Your task to perform on an android device: Search for Mexican restaurants on Maps Image 0: 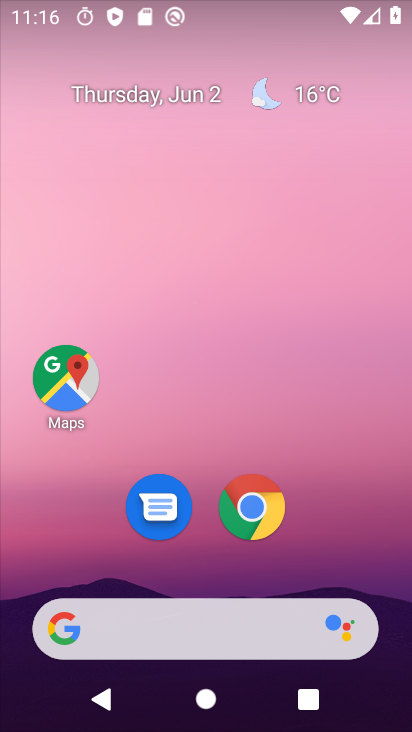
Step 0: drag from (402, 640) to (313, 47)
Your task to perform on an android device: Search for Mexican restaurants on Maps Image 1: 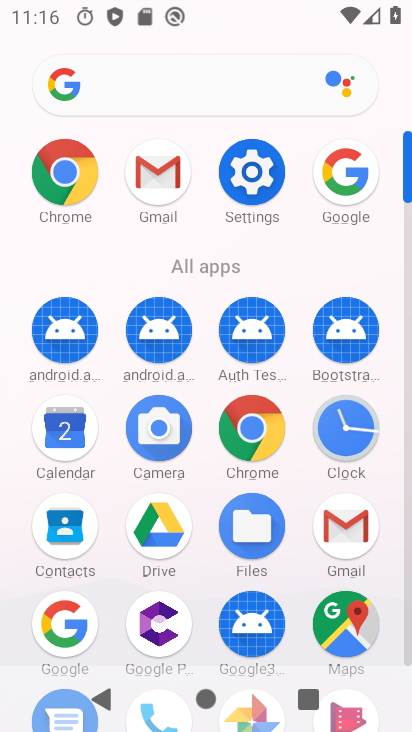
Step 1: click (360, 635)
Your task to perform on an android device: Search for Mexican restaurants on Maps Image 2: 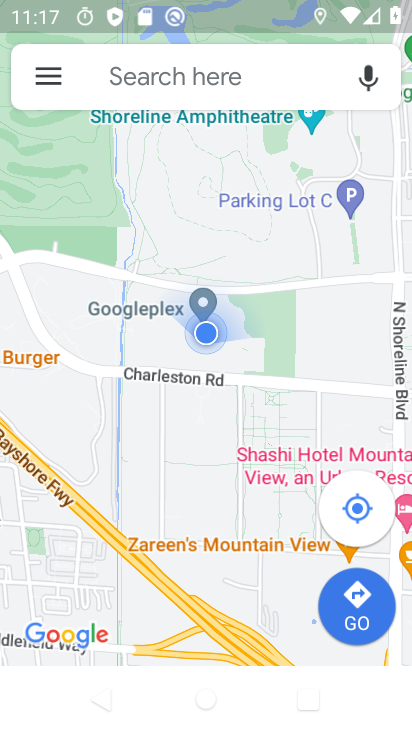
Step 2: click (157, 77)
Your task to perform on an android device: Search for Mexican restaurants on Maps Image 3: 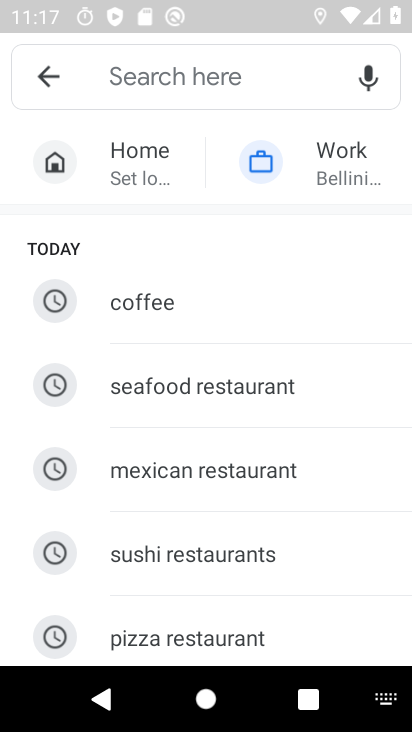
Step 3: click (261, 478)
Your task to perform on an android device: Search for Mexican restaurants on Maps Image 4: 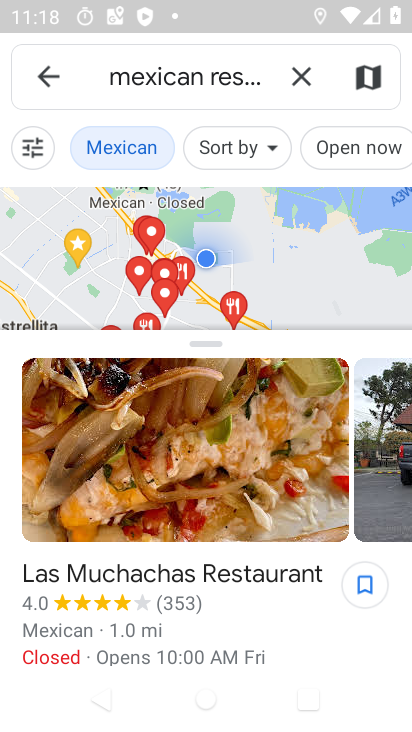
Step 4: task complete